Your task to perform on an android device: make emails show in primary in the gmail app Image 0: 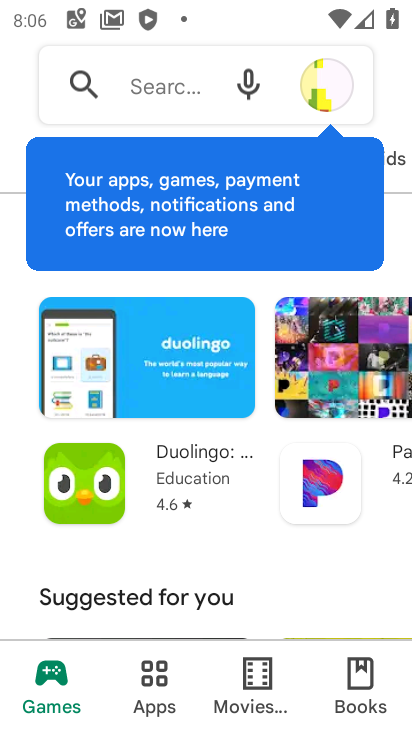
Step 0: press home button
Your task to perform on an android device: make emails show in primary in the gmail app Image 1: 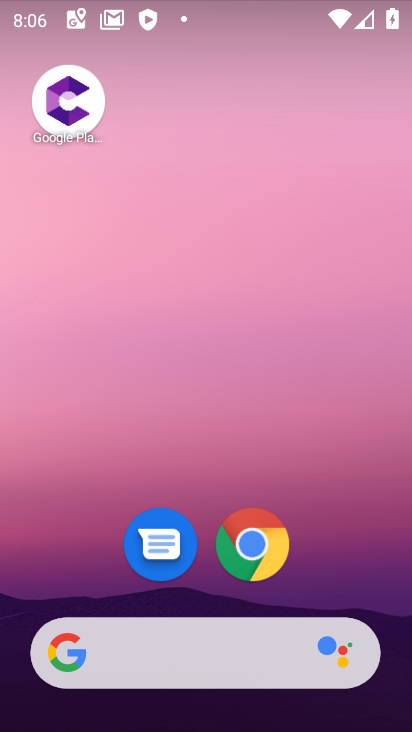
Step 1: drag from (385, 655) to (294, 105)
Your task to perform on an android device: make emails show in primary in the gmail app Image 2: 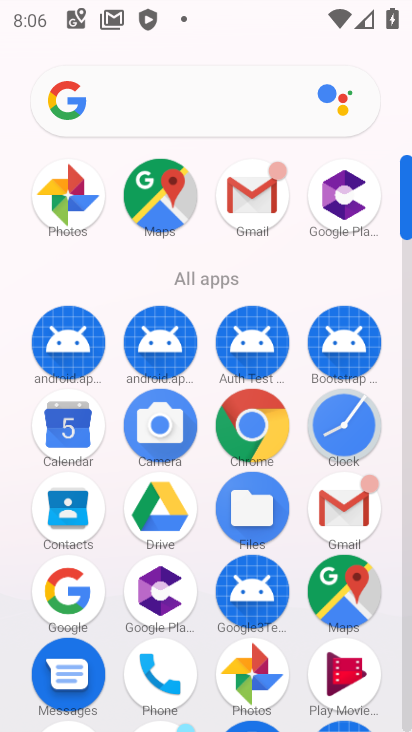
Step 2: click (353, 524)
Your task to perform on an android device: make emails show in primary in the gmail app Image 3: 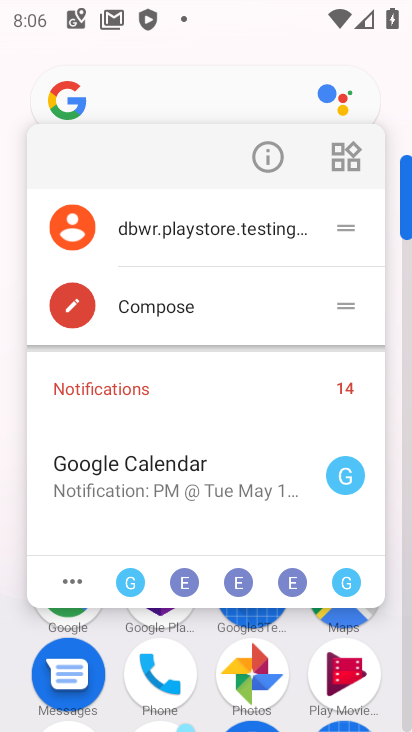
Step 3: click (400, 481)
Your task to perform on an android device: make emails show in primary in the gmail app Image 4: 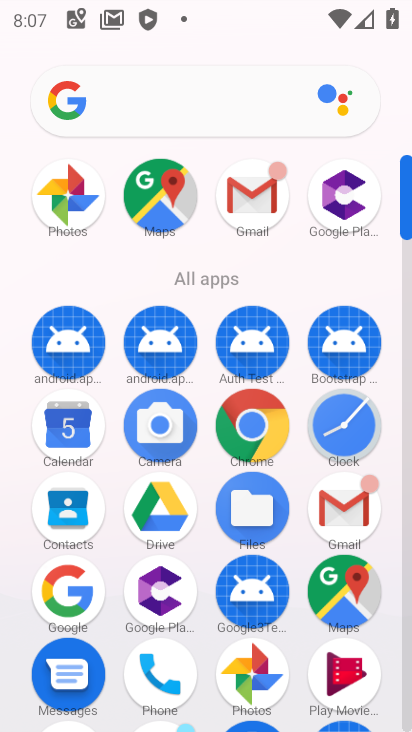
Step 4: click (327, 492)
Your task to perform on an android device: make emails show in primary in the gmail app Image 5: 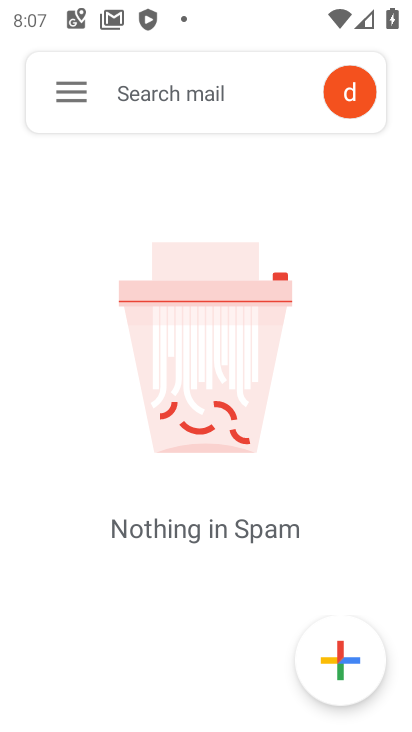
Step 5: click (69, 91)
Your task to perform on an android device: make emails show in primary in the gmail app Image 6: 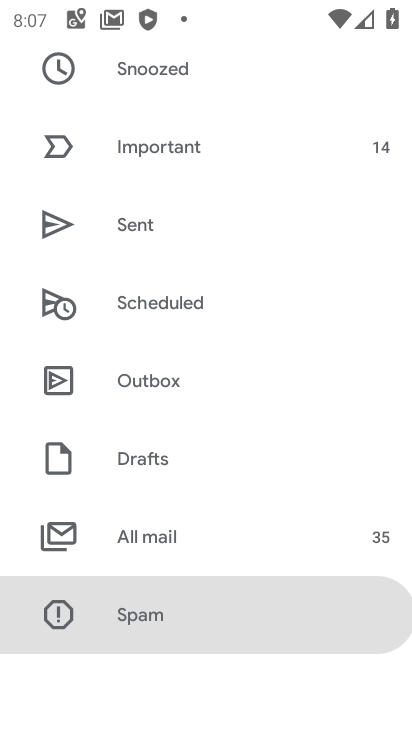
Step 6: drag from (110, 120) to (232, 554)
Your task to perform on an android device: make emails show in primary in the gmail app Image 7: 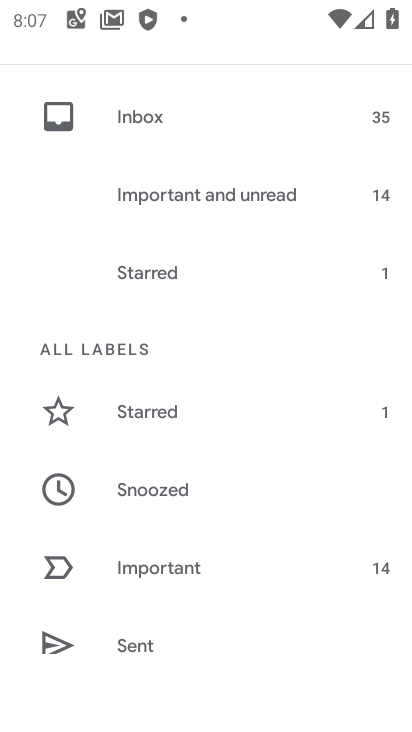
Step 7: click (197, 112)
Your task to perform on an android device: make emails show in primary in the gmail app Image 8: 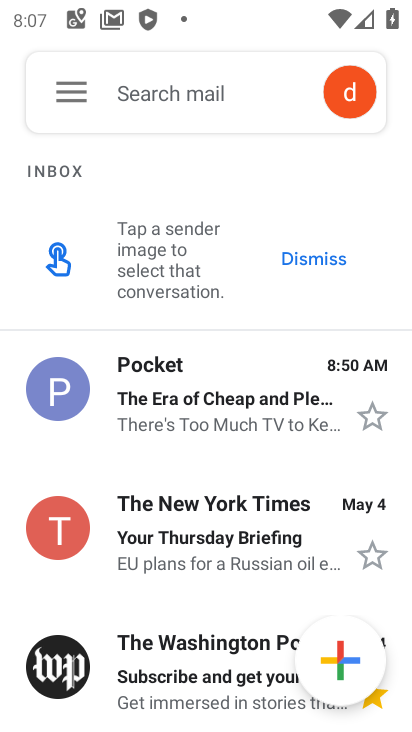
Step 8: click (178, 374)
Your task to perform on an android device: make emails show in primary in the gmail app Image 9: 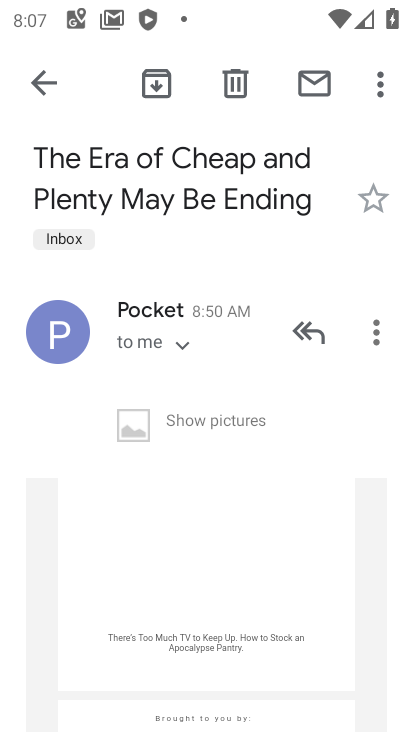
Step 9: click (377, 85)
Your task to perform on an android device: make emails show in primary in the gmail app Image 10: 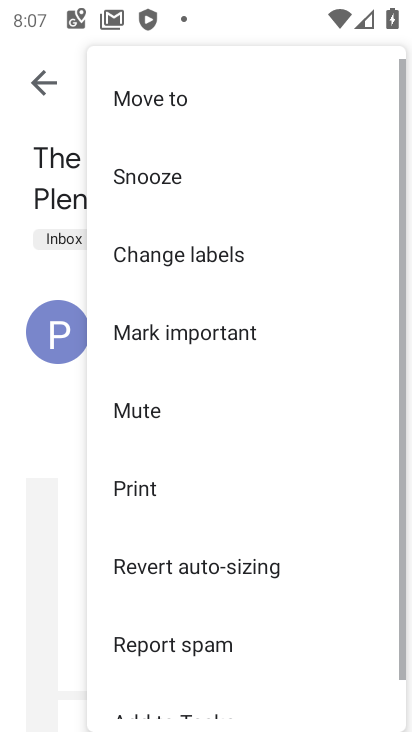
Step 10: click (261, 97)
Your task to perform on an android device: make emails show in primary in the gmail app Image 11: 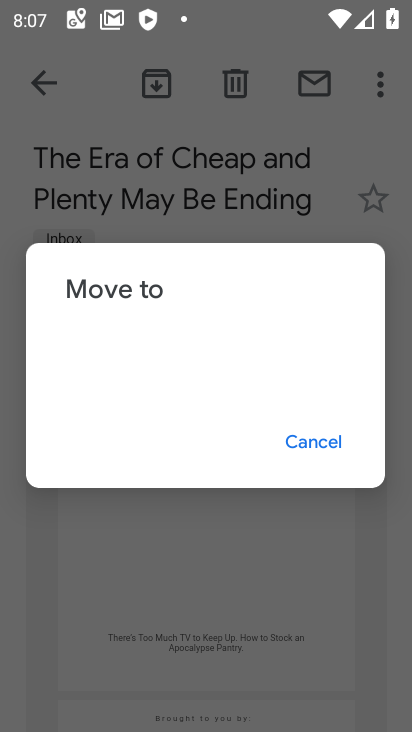
Step 11: task complete